Your task to perform on an android device: Open Google Maps Image 0: 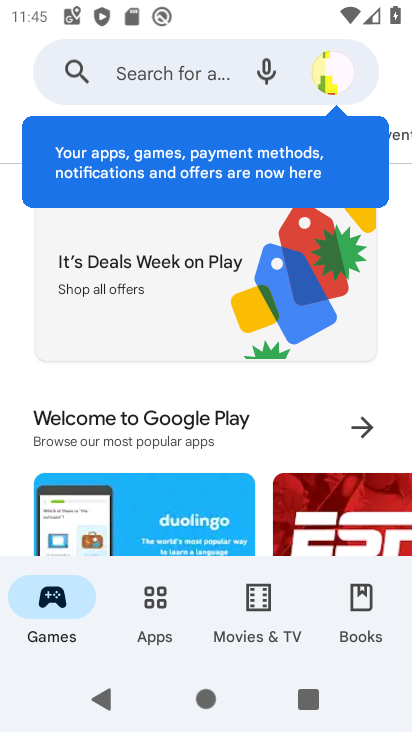
Step 0: press home button
Your task to perform on an android device: Open Google Maps Image 1: 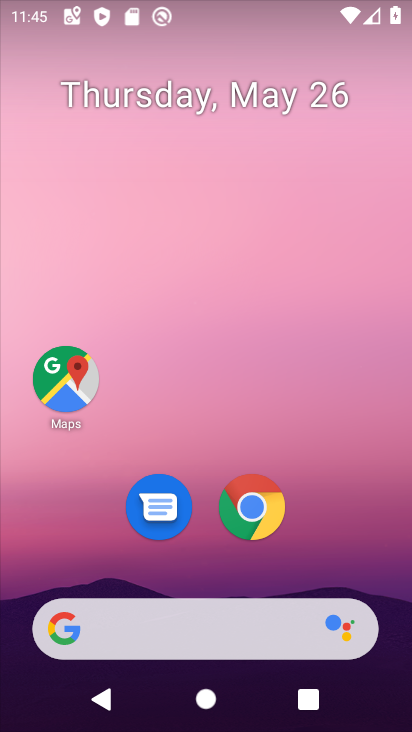
Step 1: click (68, 370)
Your task to perform on an android device: Open Google Maps Image 2: 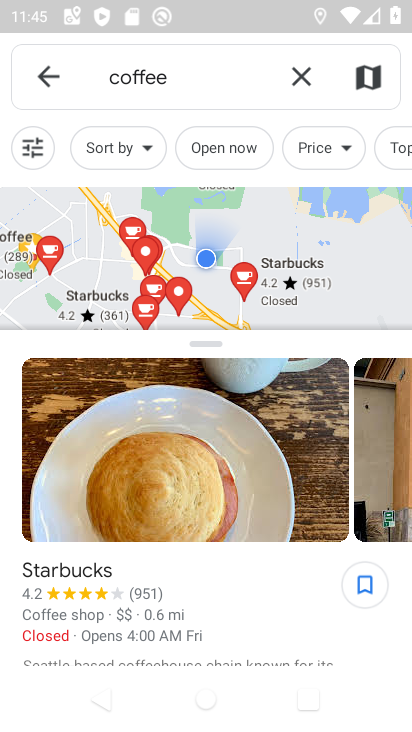
Step 2: task complete